Your task to perform on an android device: snooze an email in the gmail app Image 0: 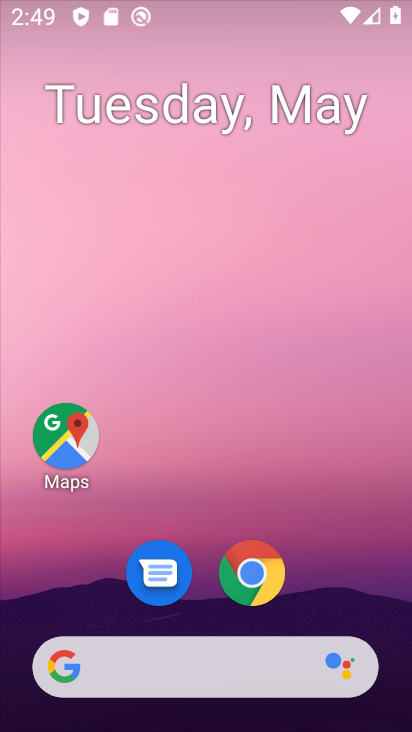
Step 0: drag from (326, 539) to (284, 54)
Your task to perform on an android device: snooze an email in the gmail app Image 1: 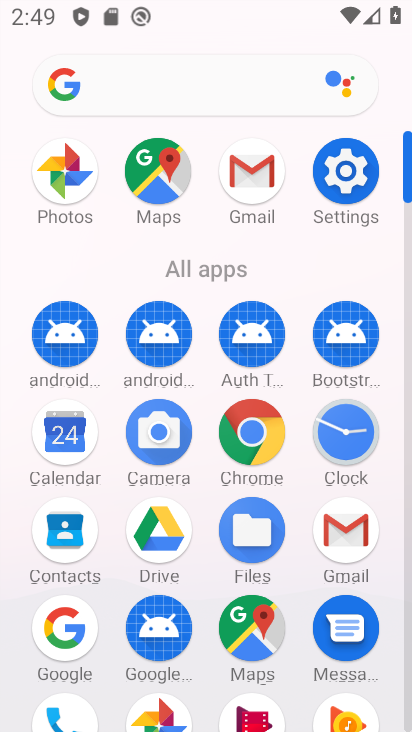
Step 1: drag from (12, 681) to (25, 307)
Your task to perform on an android device: snooze an email in the gmail app Image 2: 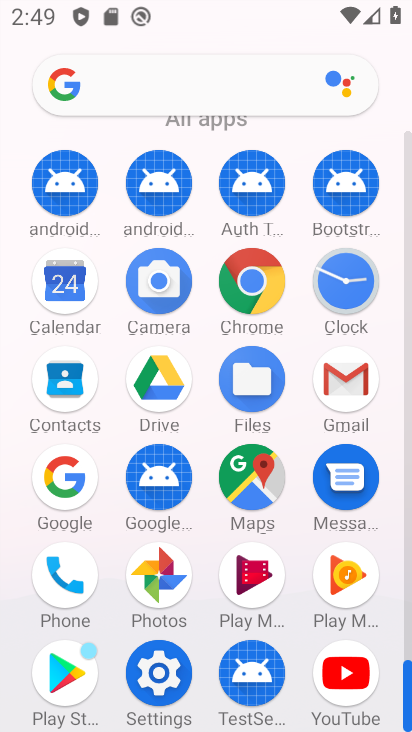
Step 2: click (346, 371)
Your task to perform on an android device: snooze an email in the gmail app Image 3: 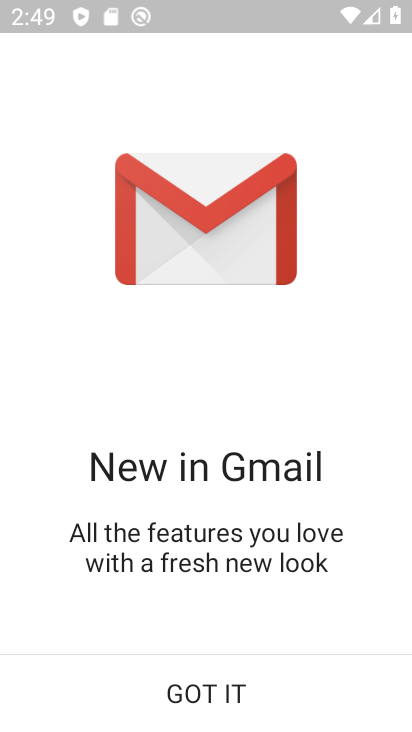
Step 3: click (199, 686)
Your task to perform on an android device: snooze an email in the gmail app Image 4: 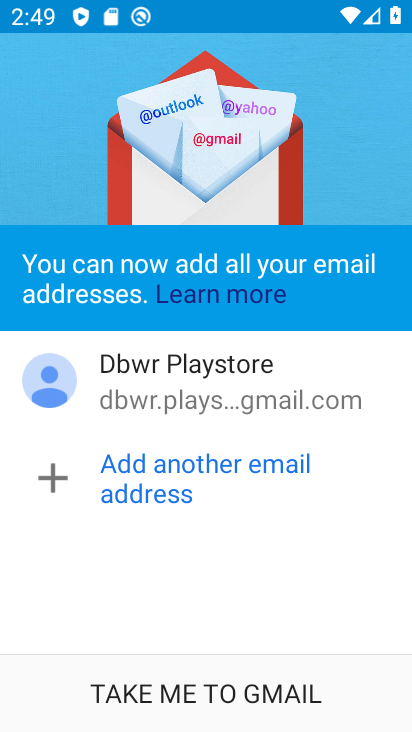
Step 4: click (197, 683)
Your task to perform on an android device: snooze an email in the gmail app Image 5: 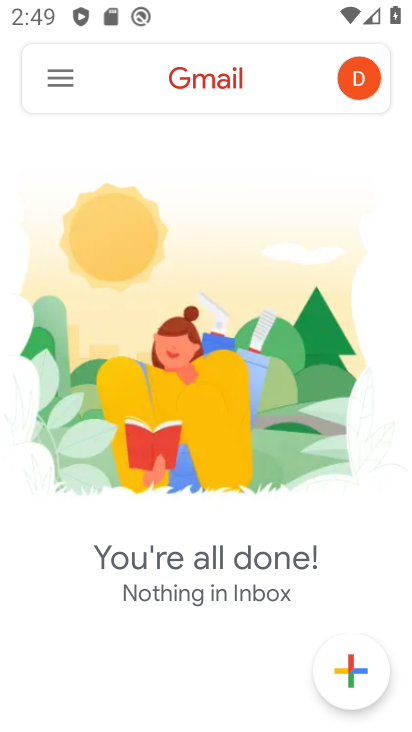
Step 5: click (53, 66)
Your task to perform on an android device: snooze an email in the gmail app Image 6: 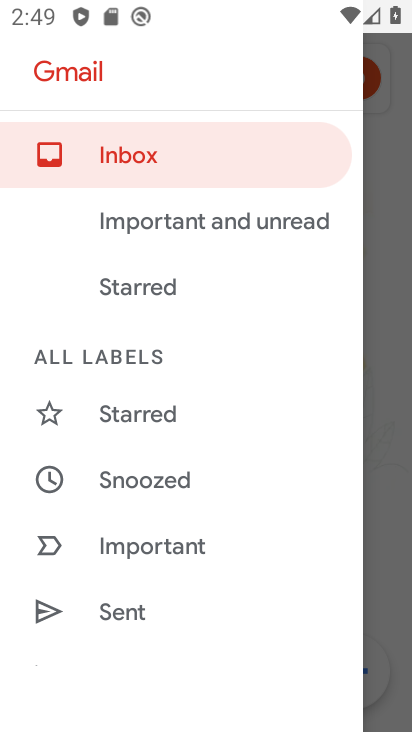
Step 6: click (175, 484)
Your task to perform on an android device: snooze an email in the gmail app Image 7: 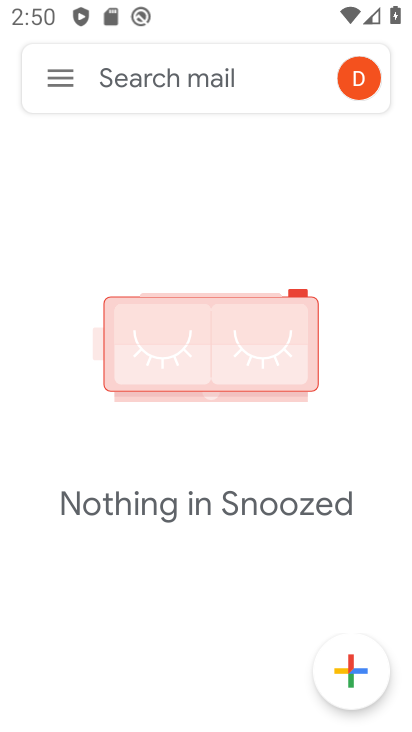
Step 7: task complete